Your task to perform on an android device: visit the assistant section in the google photos Image 0: 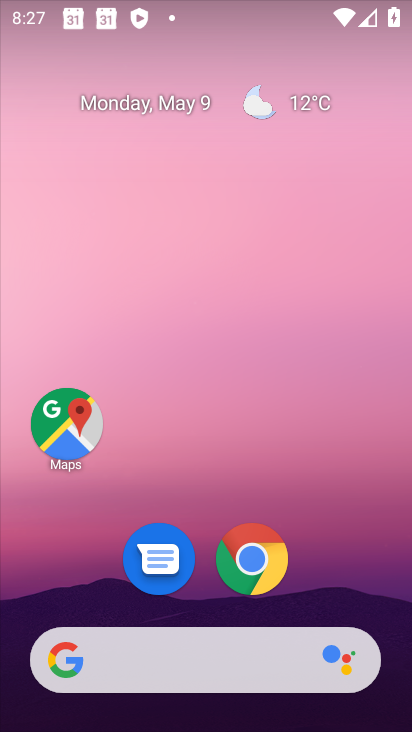
Step 0: drag from (338, 602) to (124, 138)
Your task to perform on an android device: visit the assistant section in the google photos Image 1: 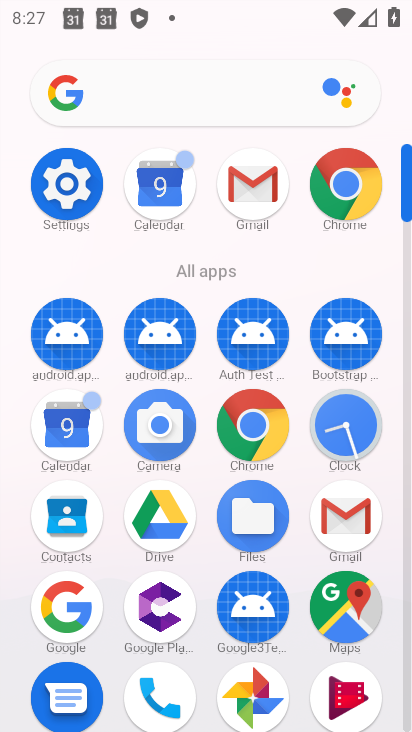
Step 1: click (251, 691)
Your task to perform on an android device: visit the assistant section in the google photos Image 2: 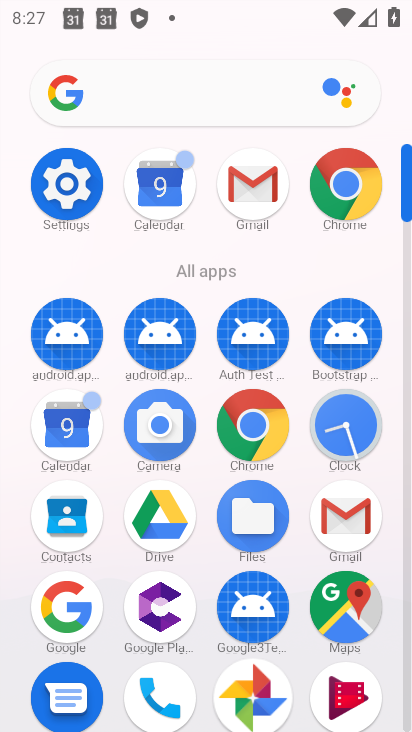
Step 2: click (251, 691)
Your task to perform on an android device: visit the assistant section in the google photos Image 3: 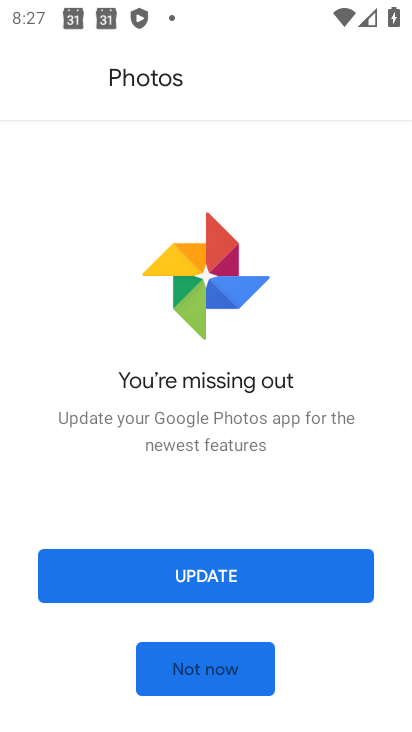
Step 3: click (219, 672)
Your task to perform on an android device: visit the assistant section in the google photos Image 4: 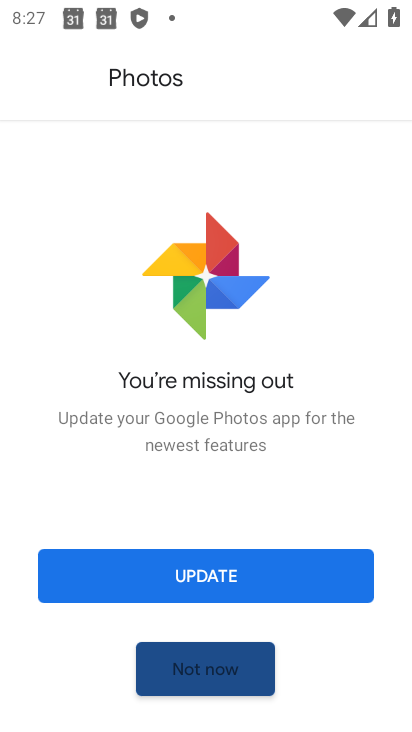
Step 4: click (219, 672)
Your task to perform on an android device: visit the assistant section in the google photos Image 5: 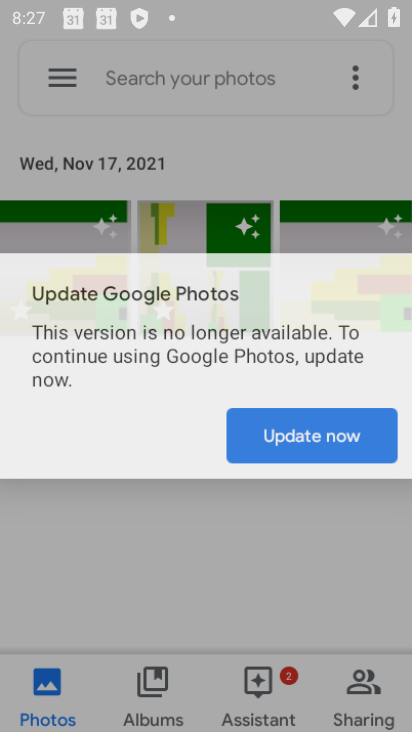
Step 5: click (219, 672)
Your task to perform on an android device: visit the assistant section in the google photos Image 6: 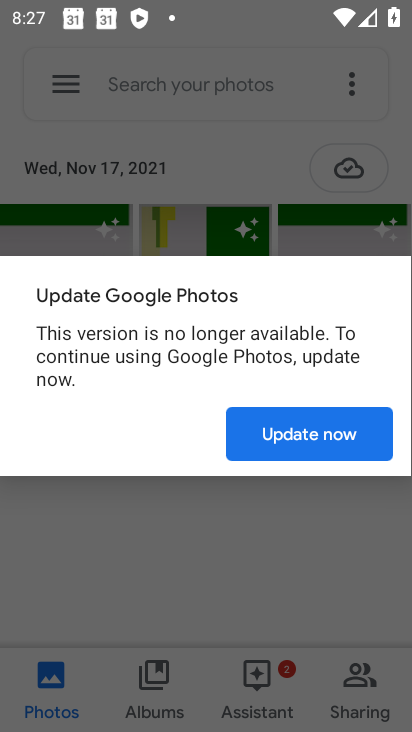
Step 6: click (314, 436)
Your task to perform on an android device: visit the assistant section in the google photos Image 7: 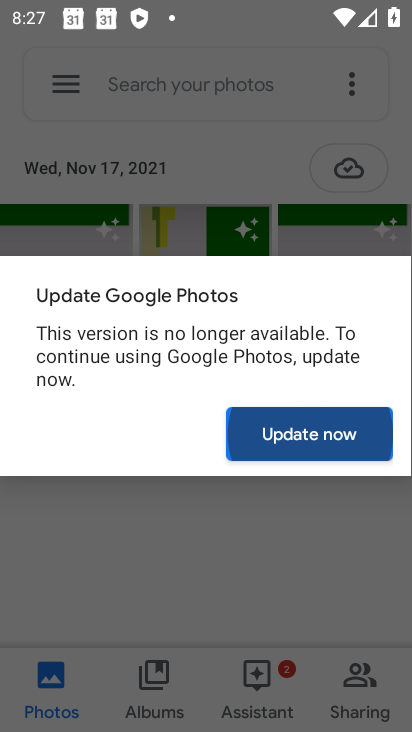
Step 7: click (314, 435)
Your task to perform on an android device: visit the assistant section in the google photos Image 8: 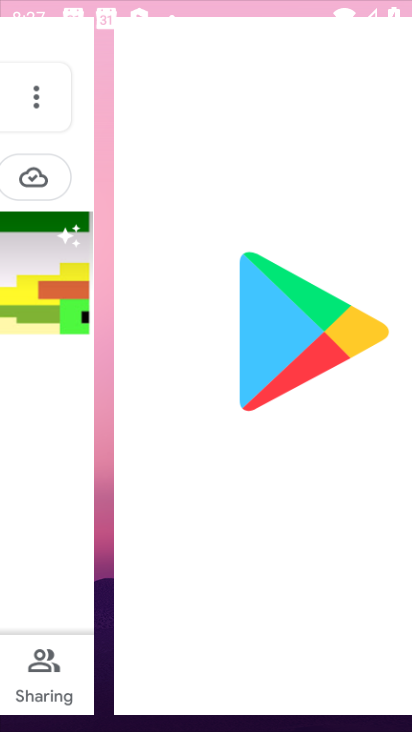
Step 8: click (314, 435)
Your task to perform on an android device: visit the assistant section in the google photos Image 9: 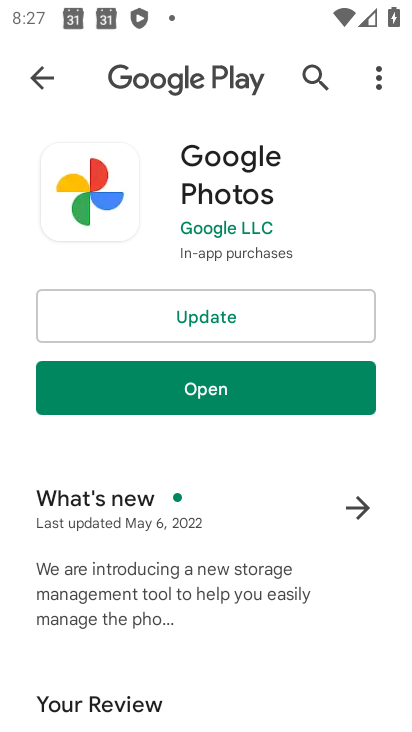
Step 9: click (204, 391)
Your task to perform on an android device: visit the assistant section in the google photos Image 10: 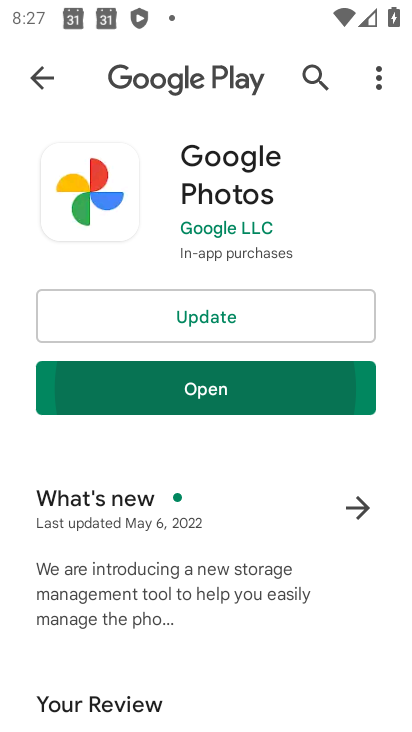
Step 10: click (207, 390)
Your task to perform on an android device: visit the assistant section in the google photos Image 11: 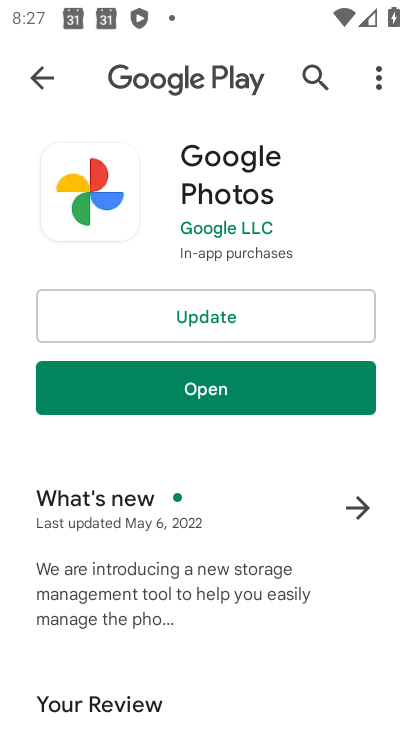
Step 11: click (208, 390)
Your task to perform on an android device: visit the assistant section in the google photos Image 12: 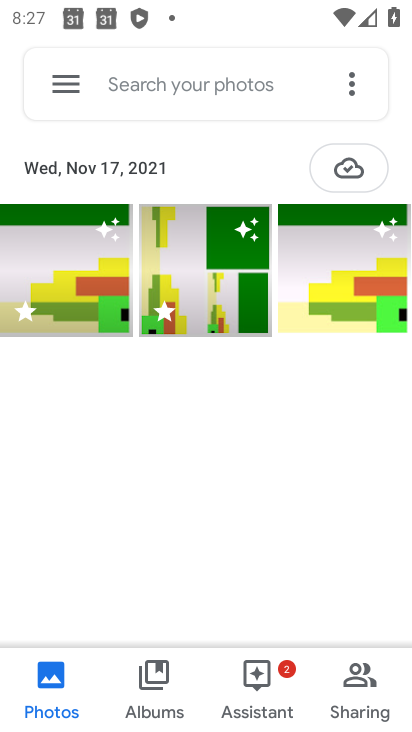
Step 12: click (260, 674)
Your task to perform on an android device: visit the assistant section in the google photos Image 13: 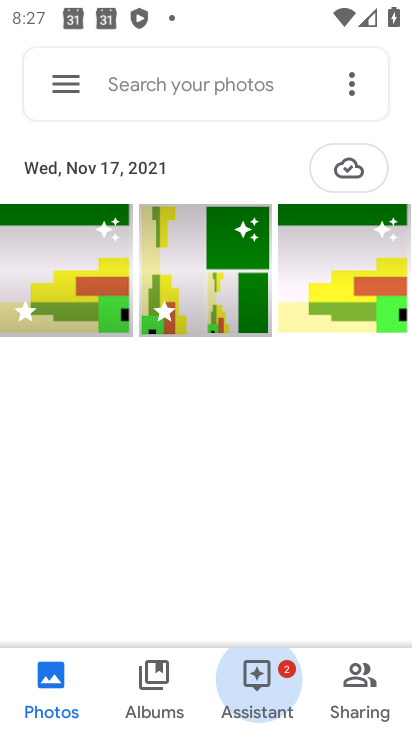
Step 13: click (260, 674)
Your task to perform on an android device: visit the assistant section in the google photos Image 14: 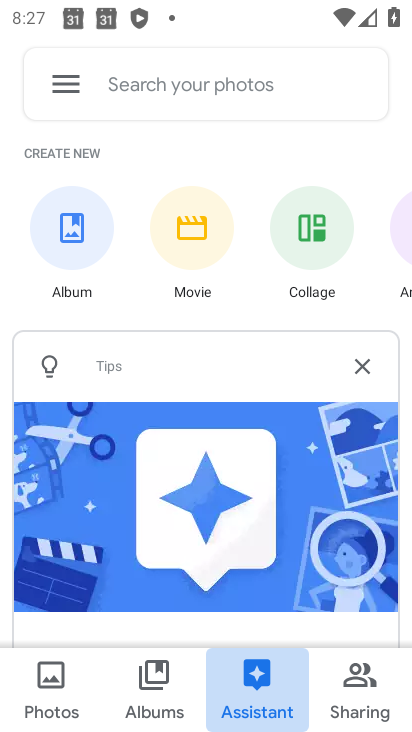
Step 14: click (262, 672)
Your task to perform on an android device: visit the assistant section in the google photos Image 15: 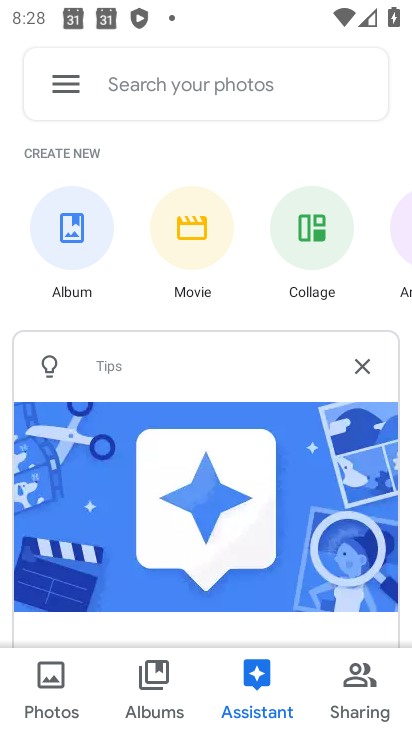
Step 15: task complete